Your task to perform on an android device: Go to eBay Image 0: 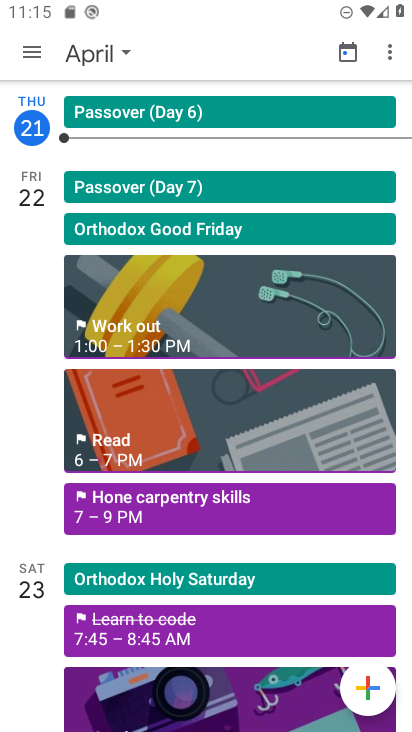
Step 0: press home button
Your task to perform on an android device: Go to eBay Image 1: 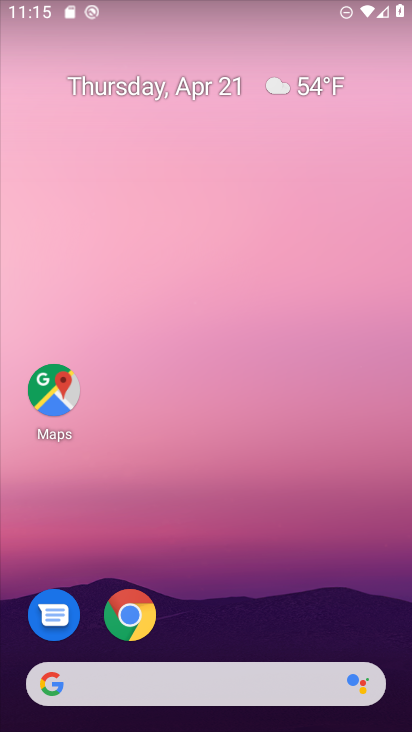
Step 1: click (124, 614)
Your task to perform on an android device: Go to eBay Image 2: 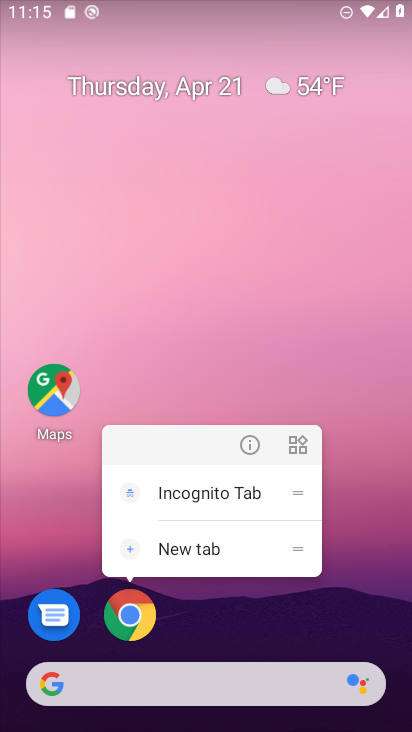
Step 2: click (123, 614)
Your task to perform on an android device: Go to eBay Image 3: 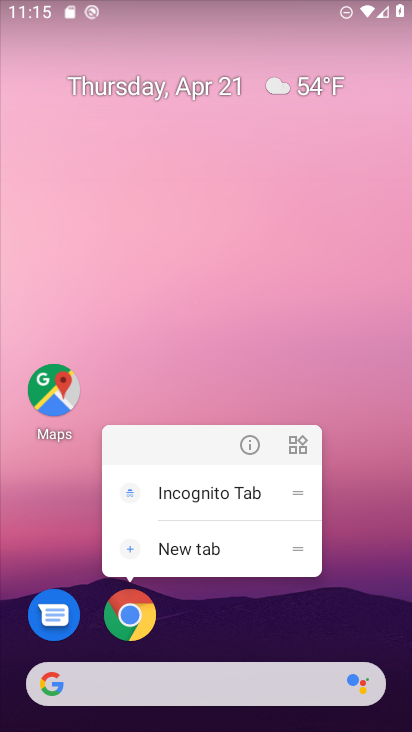
Step 3: click (123, 614)
Your task to perform on an android device: Go to eBay Image 4: 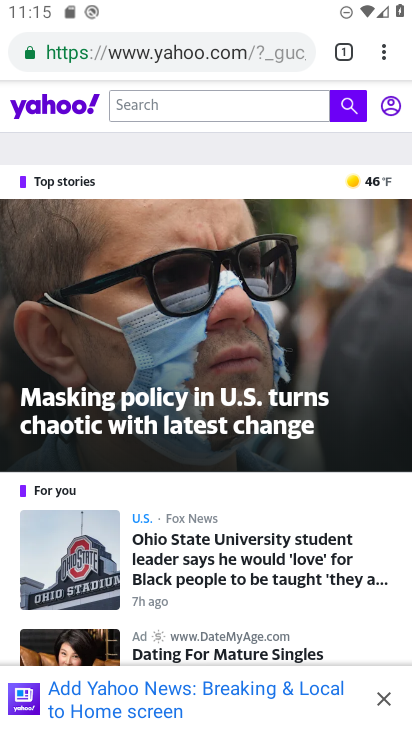
Step 4: click (171, 53)
Your task to perform on an android device: Go to eBay Image 5: 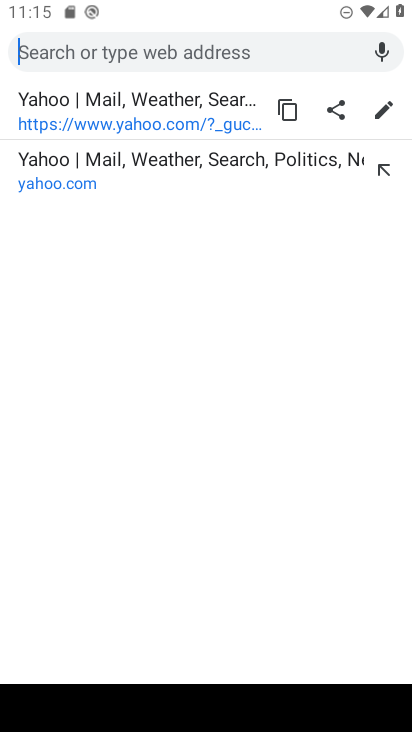
Step 5: type "ebay"
Your task to perform on an android device: Go to eBay Image 6: 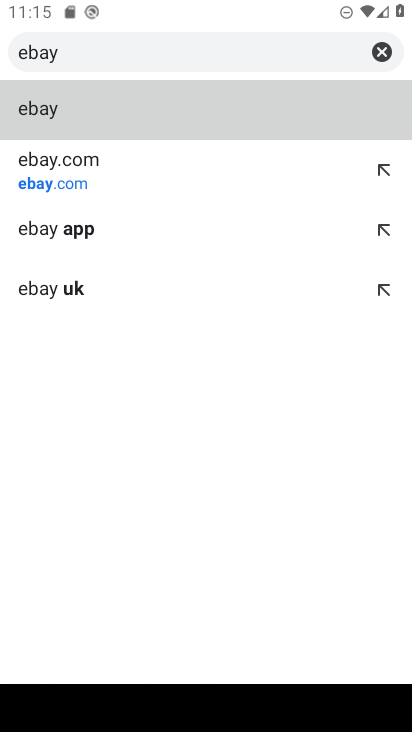
Step 6: click (44, 116)
Your task to perform on an android device: Go to eBay Image 7: 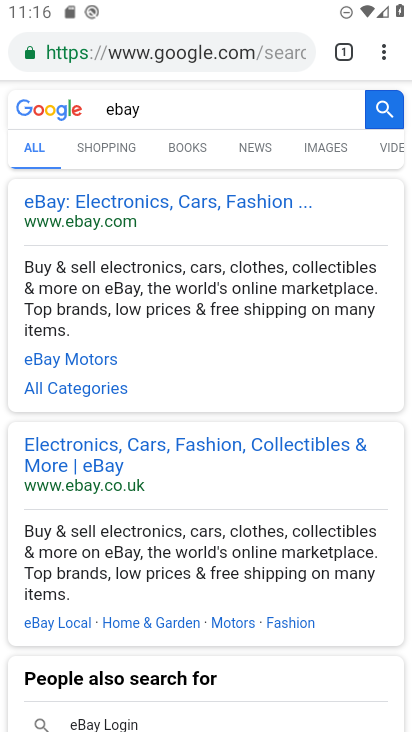
Step 7: click (84, 193)
Your task to perform on an android device: Go to eBay Image 8: 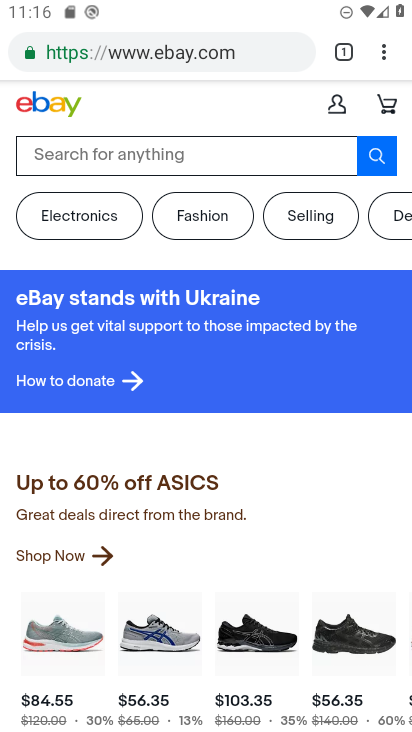
Step 8: task complete